Your task to perform on an android device: Open Android settings Image 0: 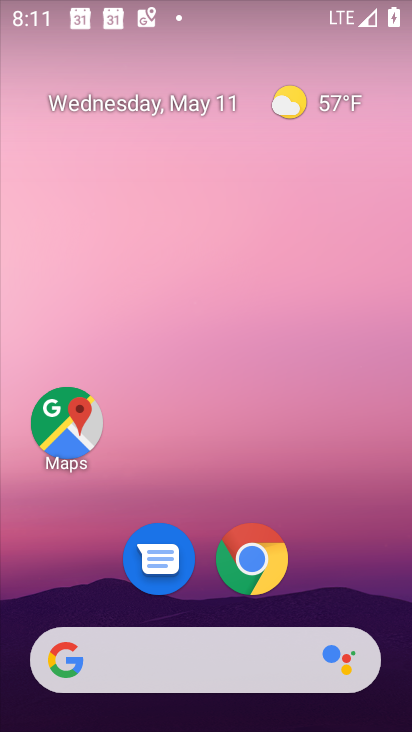
Step 0: press home button
Your task to perform on an android device: Open Android settings Image 1: 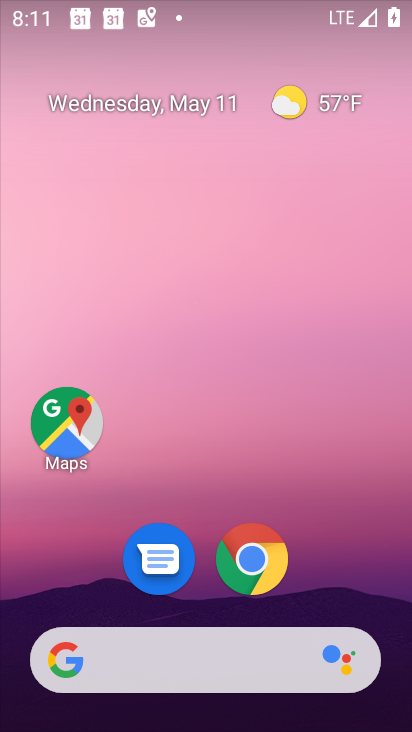
Step 1: drag from (375, 596) to (390, 75)
Your task to perform on an android device: Open Android settings Image 2: 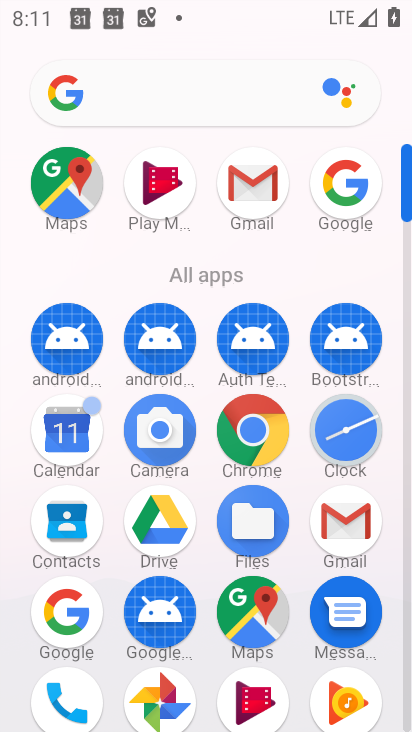
Step 2: click (408, 725)
Your task to perform on an android device: Open Android settings Image 3: 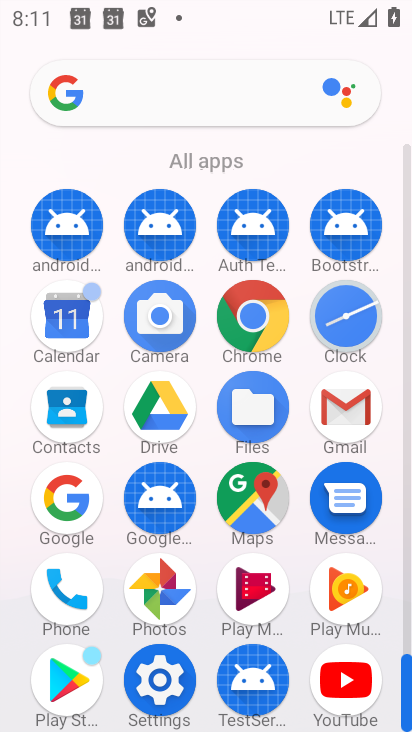
Step 3: click (170, 668)
Your task to perform on an android device: Open Android settings Image 4: 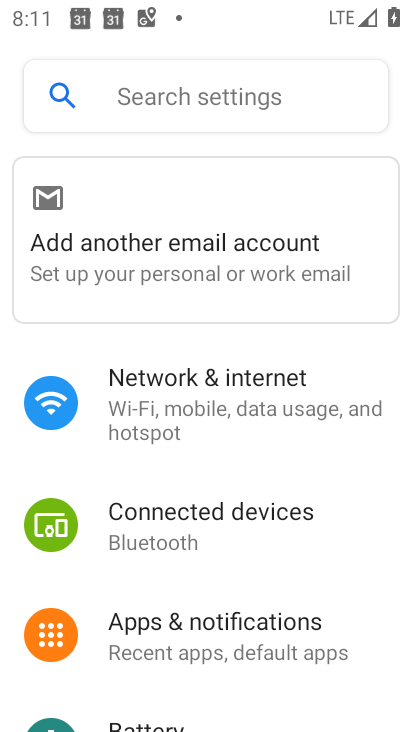
Step 4: drag from (180, 637) to (240, 9)
Your task to perform on an android device: Open Android settings Image 5: 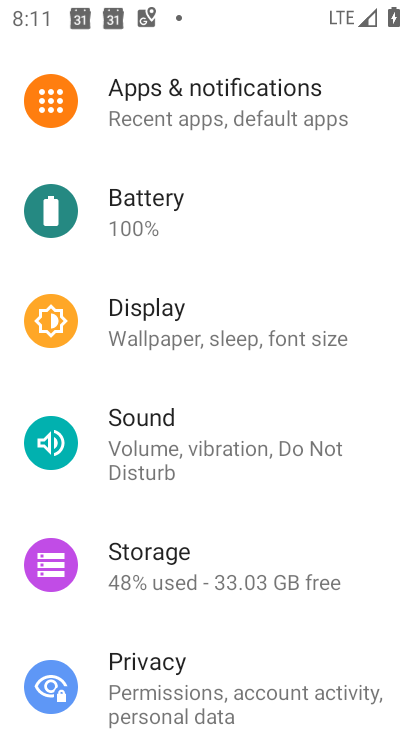
Step 5: drag from (236, 685) to (308, 53)
Your task to perform on an android device: Open Android settings Image 6: 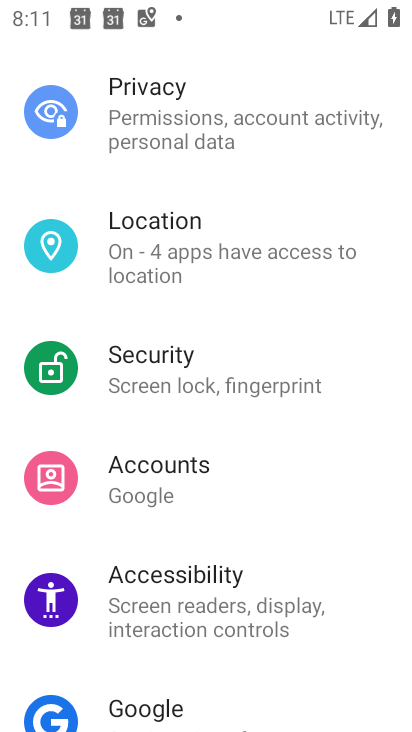
Step 6: drag from (264, 683) to (317, 178)
Your task to perform on an android device: Open Android settings Image 7: 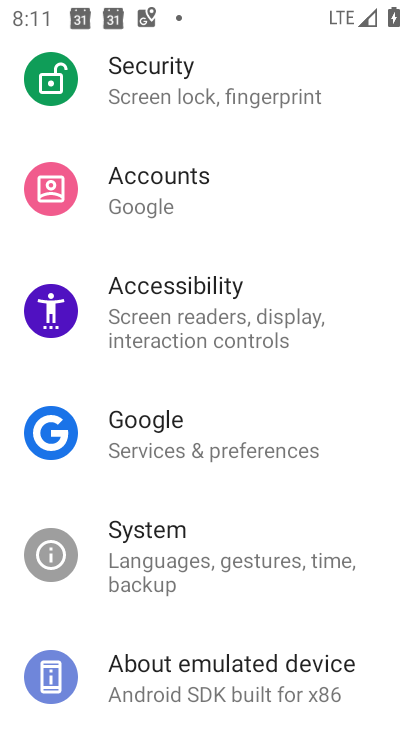
Step 7: click (249, 652)
Your task to perform on an android device: Open Android settings Image 8: 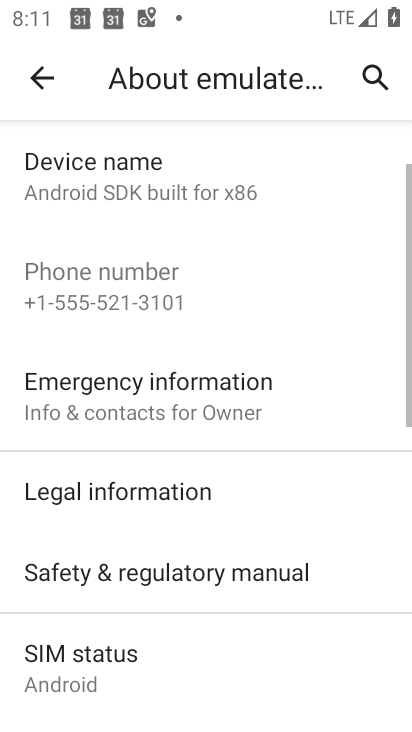
Step 8: drag from (249, 652) to (279, 225)
Your task to perform on an android device: Open Android settings Image 9: 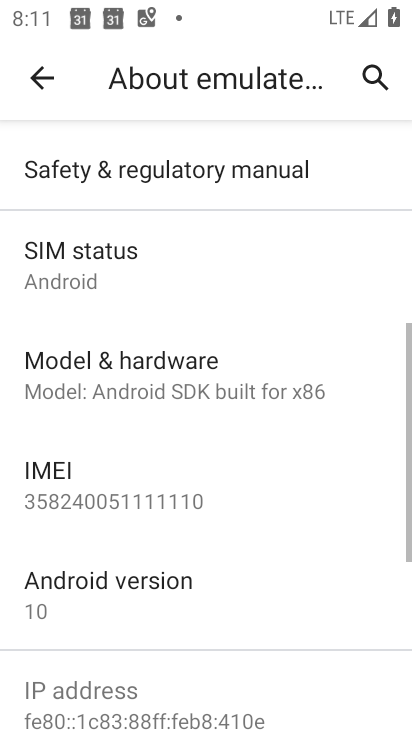
Step 9: click (187, 568)
Your task to perform on an android device: Open Android settings Image 10: 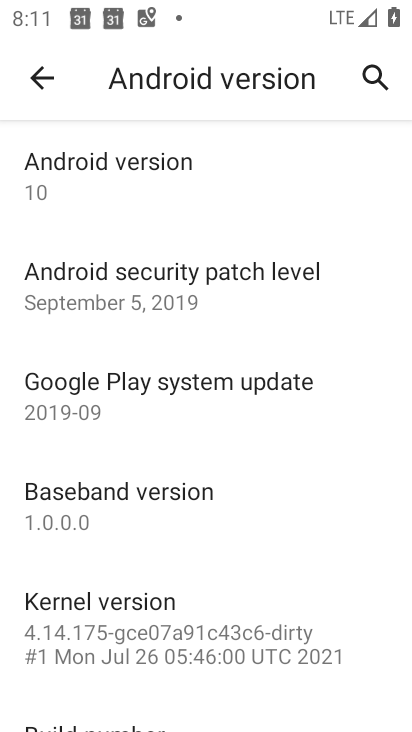
Step 10: task complete